Your task to perform on an android device: toggle wifi Image 0: 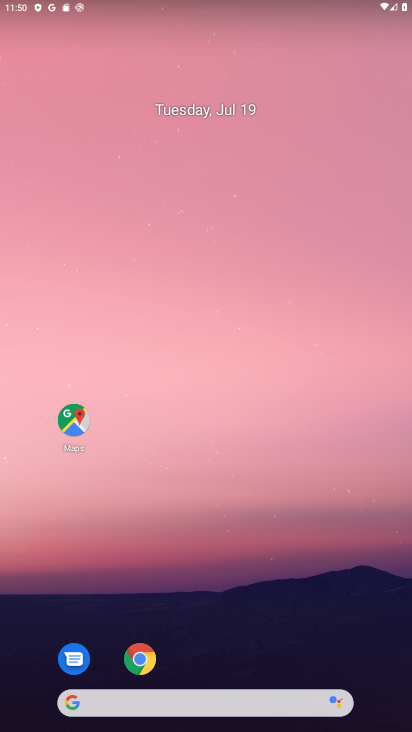
Step 0: drag from (276, 564) to (203, 128)
Your task to perform on an android device: toggle wifi Image 1: 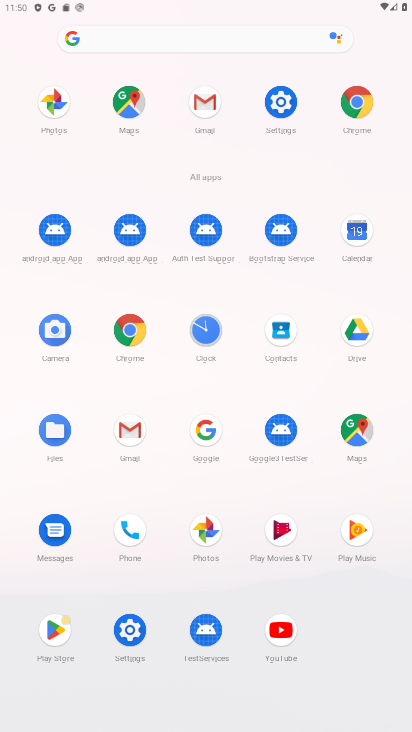
Step 1: click (283, 109)
Your task to perform on an android device: toggle wifi Image 2: 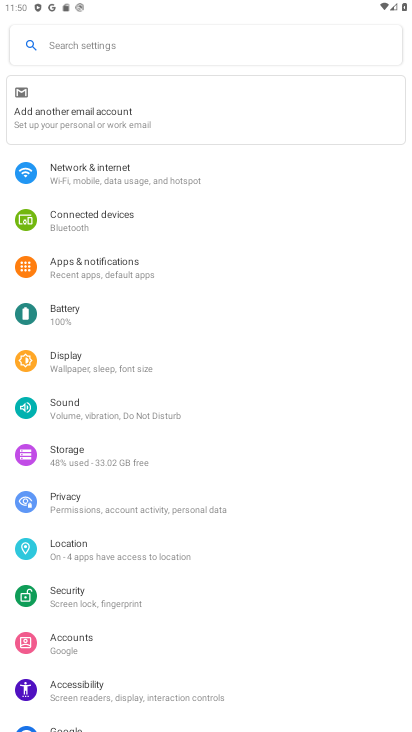
Step 2: click (167, 172)
Your task to perform on an android device: toggle wifi Image 3: 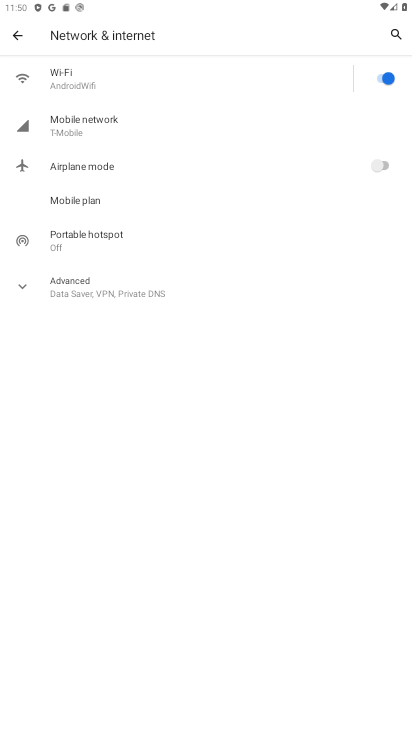
Step 3: click (370, 72)
Your task to perform on an android device: toggle wifi Image 4: 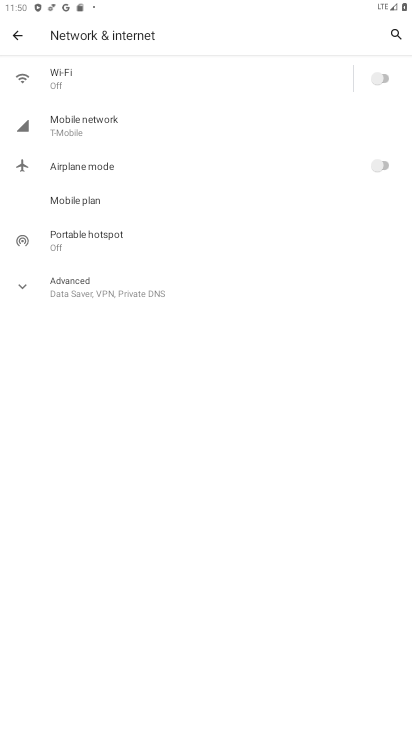
Step 4: task complete